Your task to perform on an android device: turn off location Image 0: 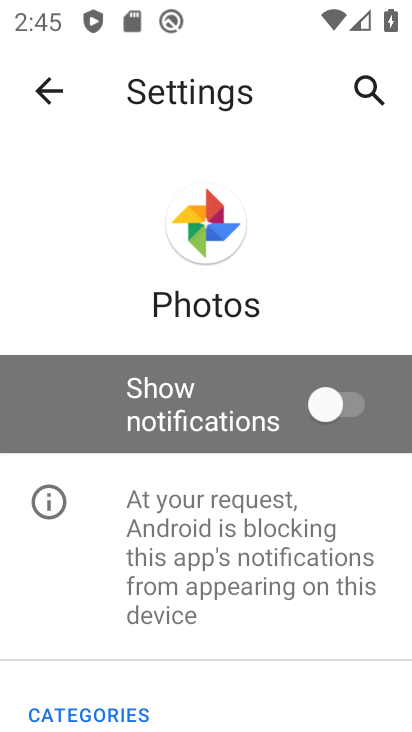
Step 0: press home button
Your task to perform on an android device: turn off location Image 1: 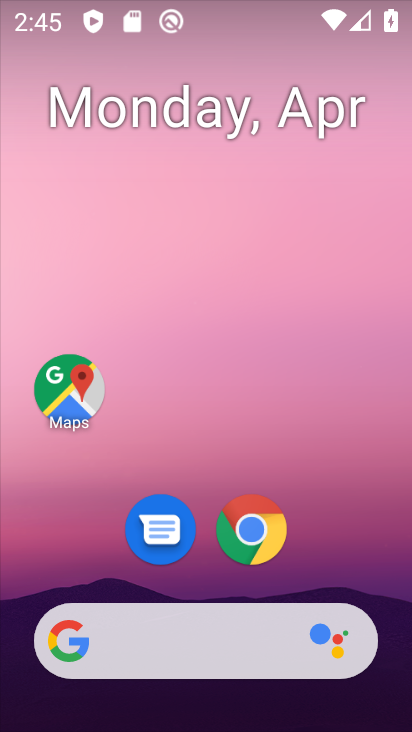
Step 1: drag from (246, 667) to (199, 191)
Your task to perform on an android device: turn off location Image 2: 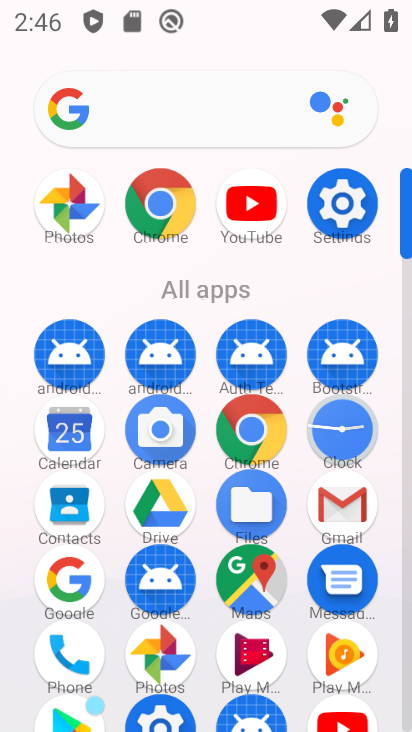
Step 2: click (337, 227)
Your task to perform on an android device: turn off location Image 3: 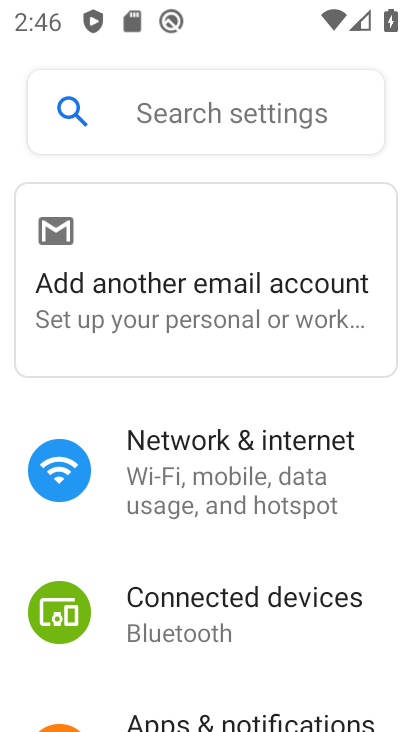
Step 3: click (170, 111)
Your task to perform on an android device: turn off location Image 4: 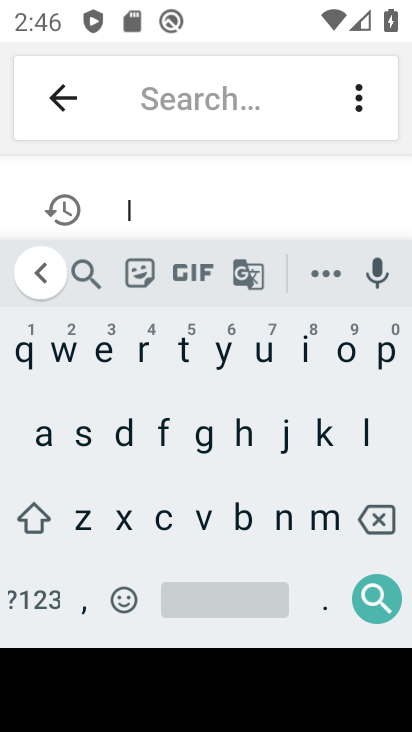
Step 4: click (150, 203)
Your task to perform on an android device: turn off location Image 5: 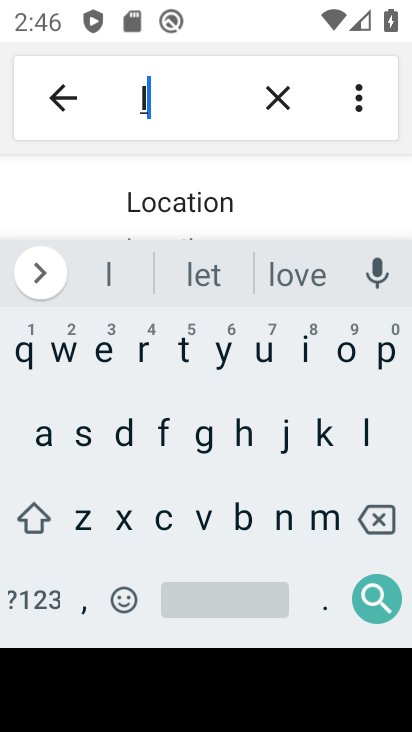
Step 5: click (230, 218)
Your task to perform on an android device: turn off location Image 6: 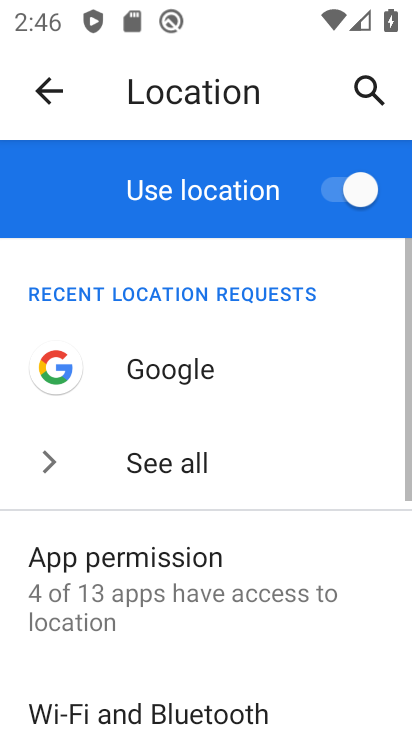
Step 6: click (348, 175)
Your task to perform on an android device: turn off location Image 7: 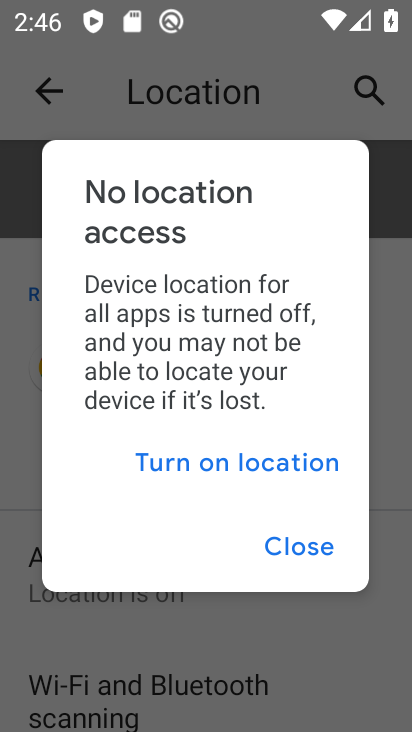
Step 7: task complete